Your task to perform on an android device: turn on the 12-hour format for clock Image 0: 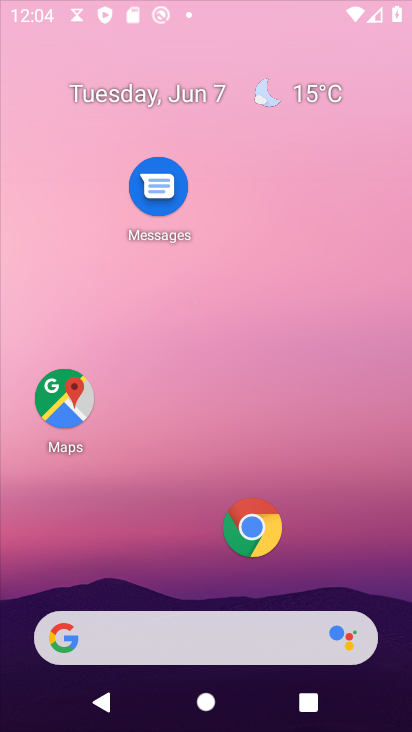
Step 0: click (180, 294)
Your task to perform on an android device: turn on the 12-hour format for clock Image 1: 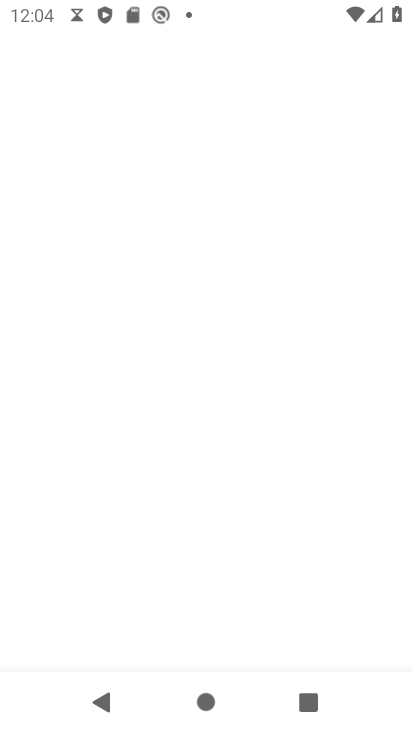
Step 1: press home button
Your task to perform on an android device: turn on the 12-hour format for clock Image 2: 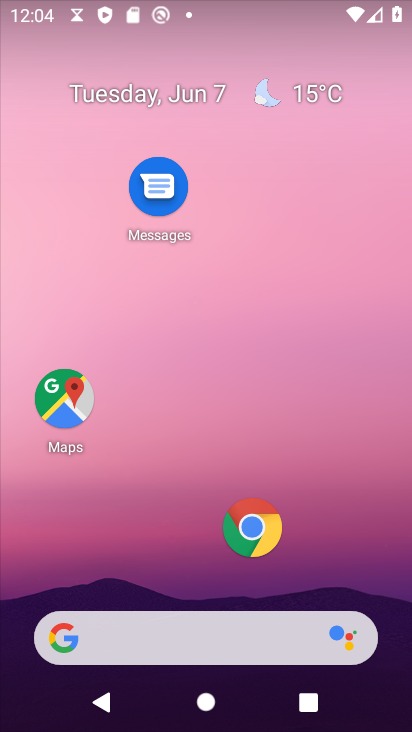
Step 2: drag from (124, 618) to (190, 186)
Your task to perform on an android device: turn on the 12-hour format for clock Image 3: 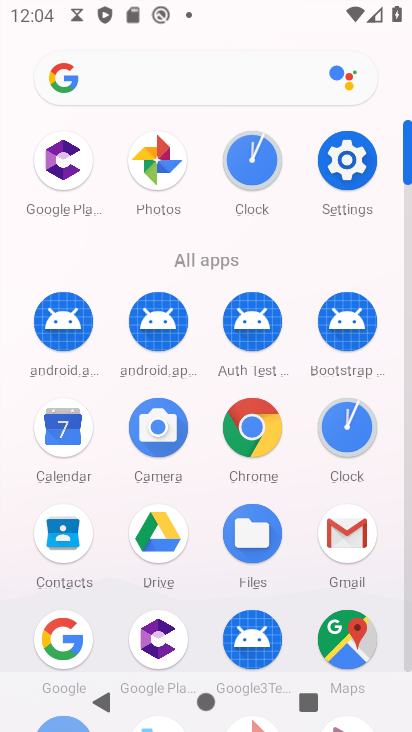
Step 3: click (330, 438)
Your task to perform on an android device: turn on the 12-hour format for clock Image 4: 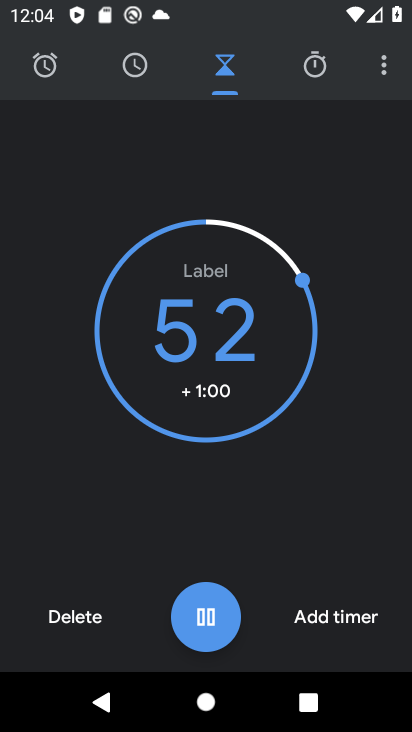
Step 4: click (386, 65)
Your task to perform on an android device: turn on the 12-hour format for clock Image 5: 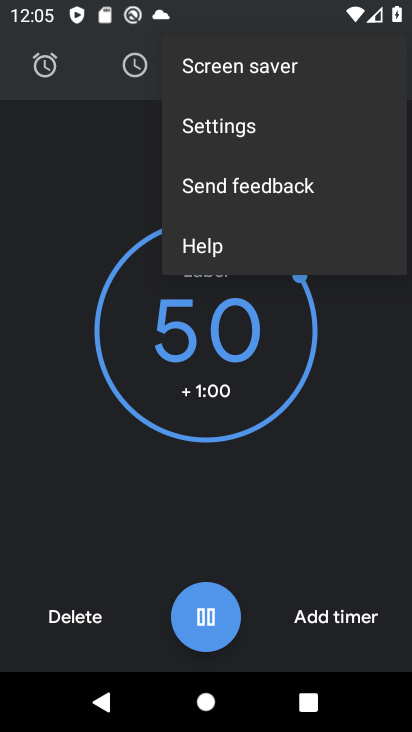
Step 5: click (197, 120)
Your task to perform on an android device: turn on the 12-hour format for clock Image 6: 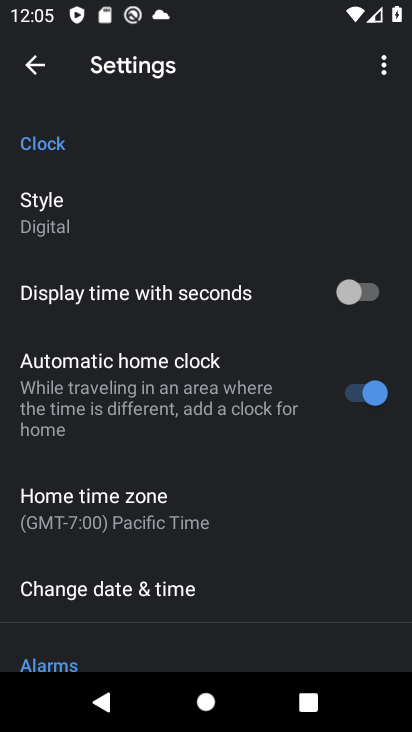
Step 6: click (132, 590)
Your task to perform on an android device: turn on the 12-hour format for clock Image 7: 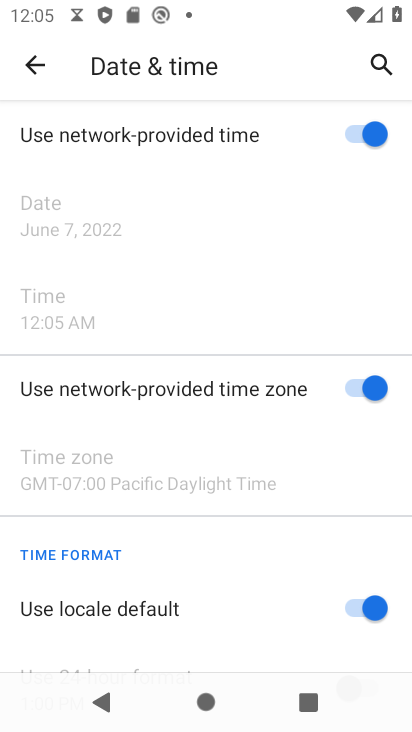
Step 7: task complete